Your task to perform on an android device: Open Chrome and go to settings Image 0: 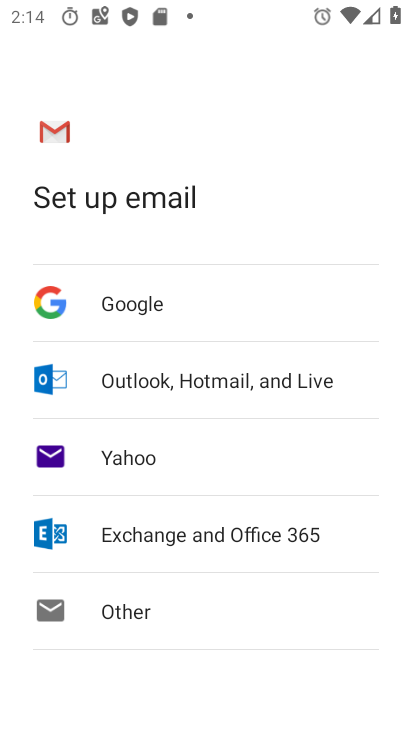
Step 0: press home button
Your task to perform on an android device: Open Chrome and go to settings Image 1: 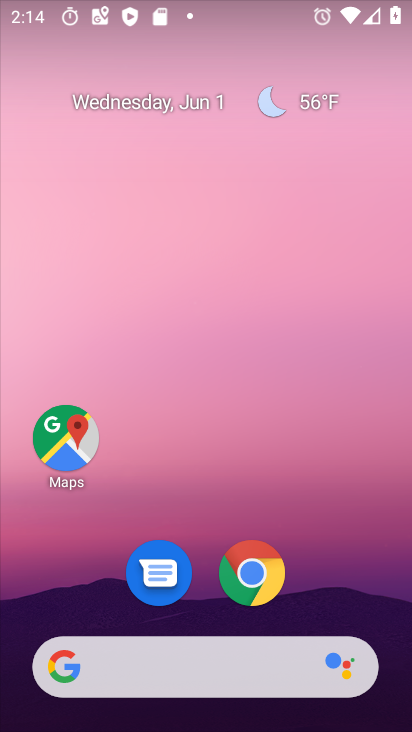
Step 1: drag from (339, 584) to (247, 92)
Your task to perform on an android device: Open Chrome and go to settings Image 2: 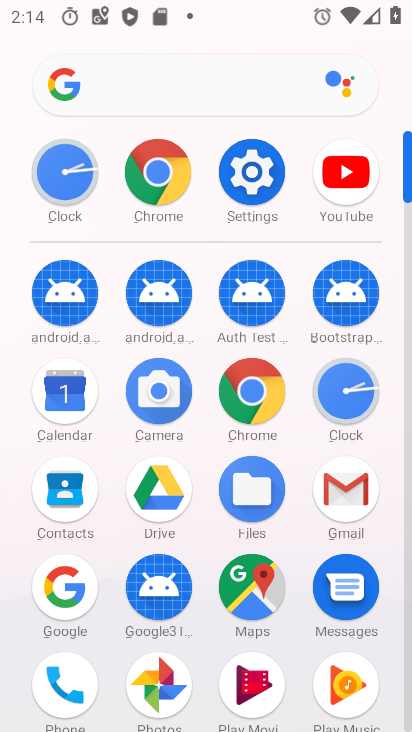
Step 2: click (169, 166)
Your task to perform on an android device: Open Chrome and go to settings Image 3: 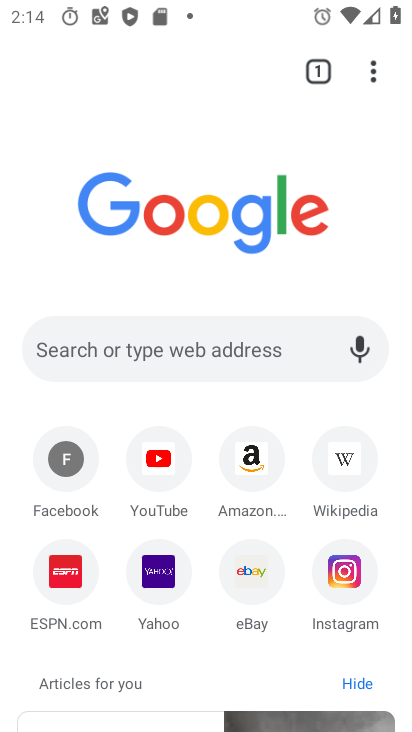
Step 3: task complete